Your task to perform on an android device: Go to network settings Image 0: 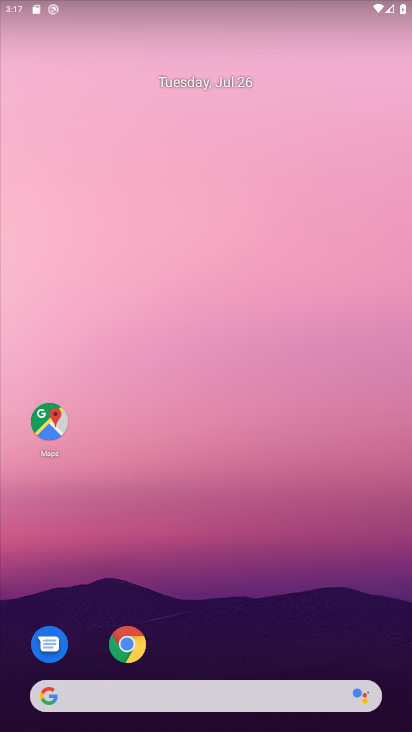
Step 0: click (357, 510)
Your task to perform on an android device: Go to network settings Image 1: 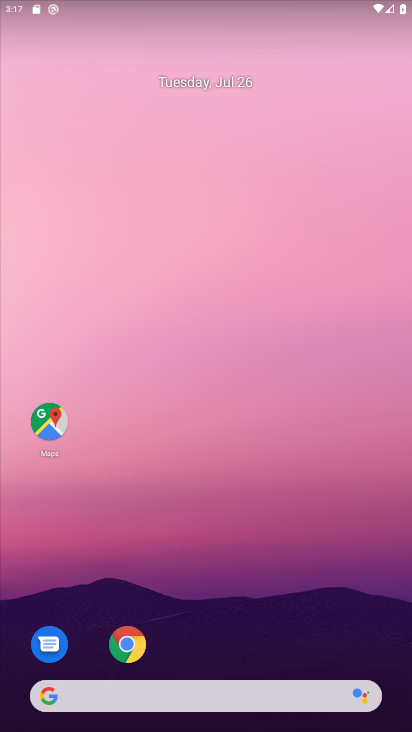
Step 1: click (236, 104)
Your task to perform on an android device: Go to network settings Image 2: 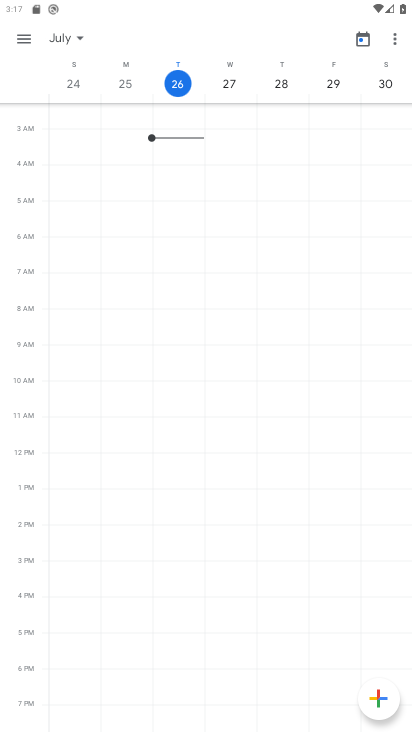
Step 2: press home button
Your task to perform on an android device: Go to network settings Image 3: 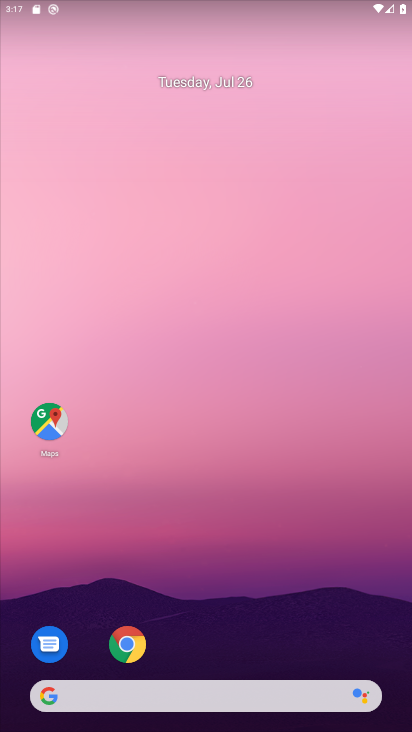
Step 3: drag from (216, 659) to (219, 81)
Your task to perform on an android device: Go to network settings Image 4: 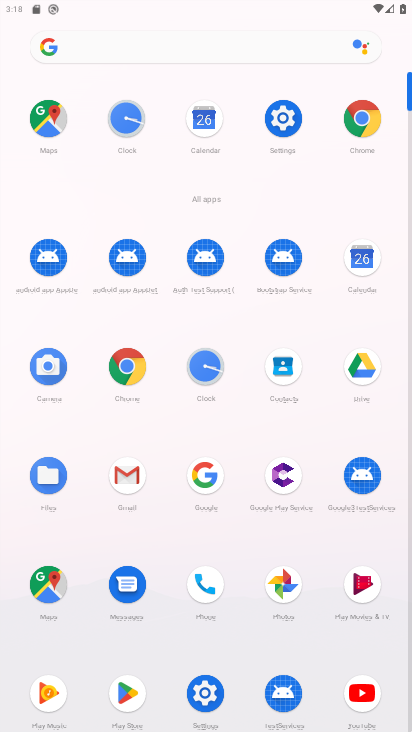
Step 4: click (292, 113)
Your task to perform on an android device: Go to network settings Image 5: 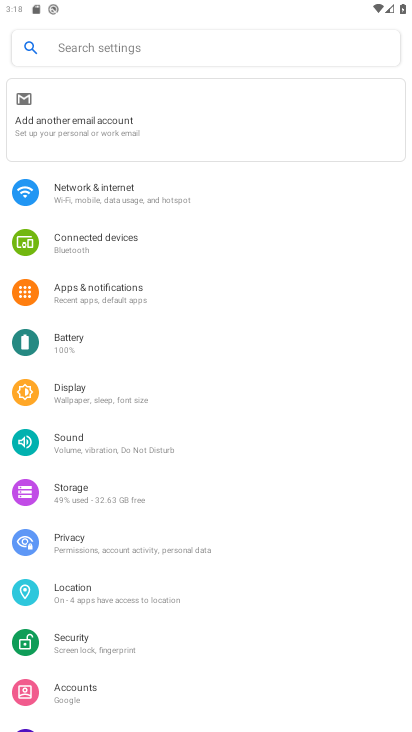
Step 5: click (57, 196)
Your task to perform on an android device: Go to network settings Image 6: 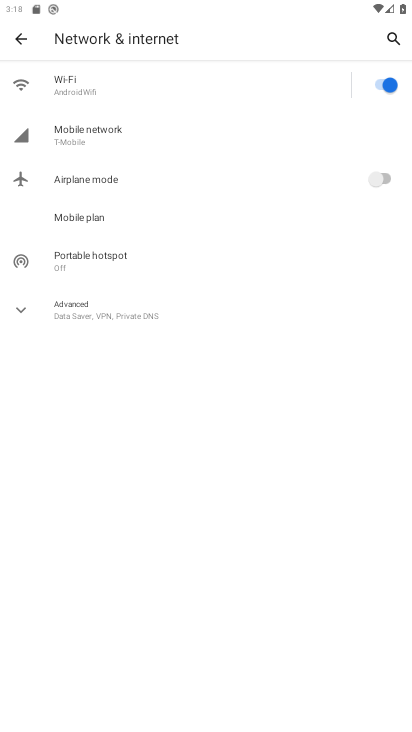
Step 6: task complete